Your task to perform on an android device: change alarm snooze length Image 0: 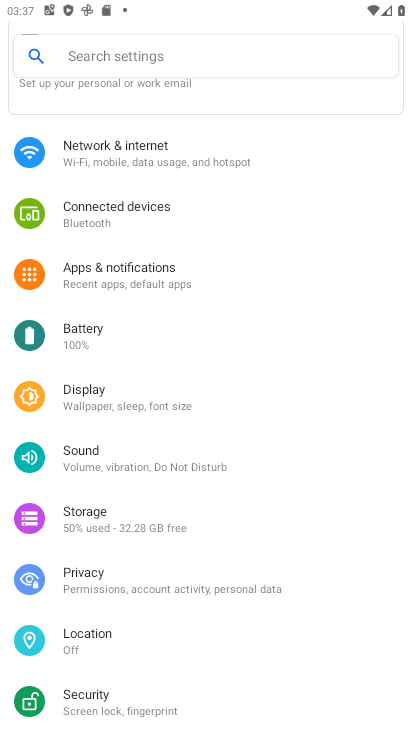
Step 0: press home button
Your task to perform on an android device: change alarm snooze length Image 1: 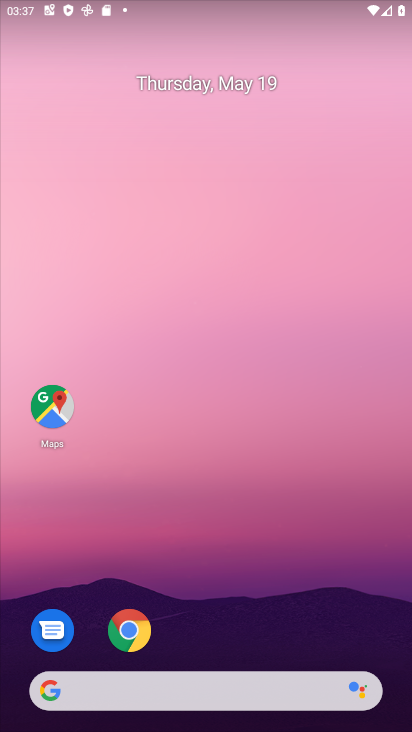
Step 1: drag from (386, 637) to (317, 78)
Your task to perform on an android device: change alarm snooze length Image 2: 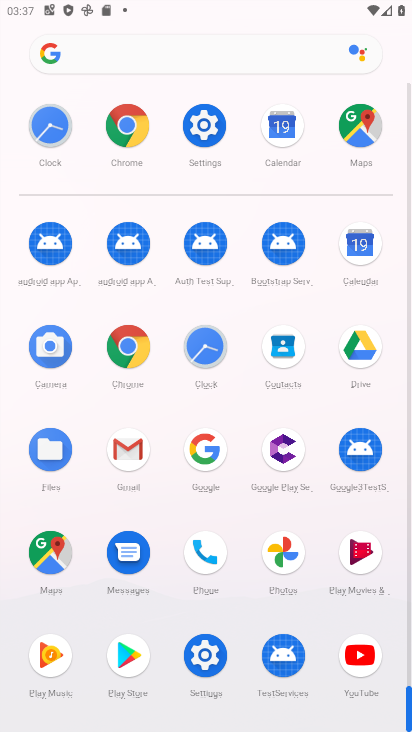
Step 2: click (201, 344)
Your task to perform on an android device: change alarm snooze length Image 3: 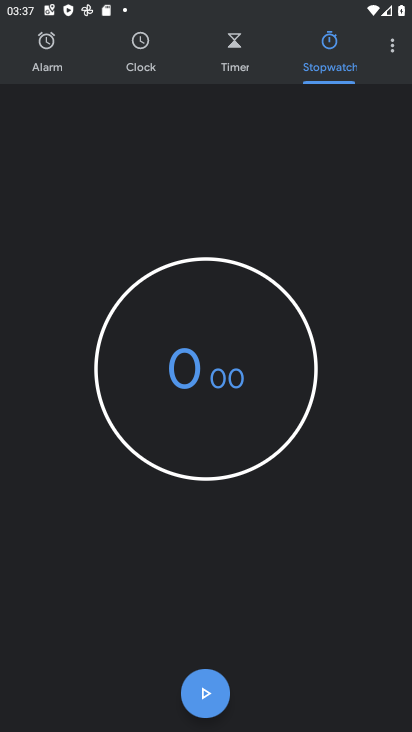
Step 3: click (388, 46)
Your task to perform on an android device: change alarm snooze length Image 4: 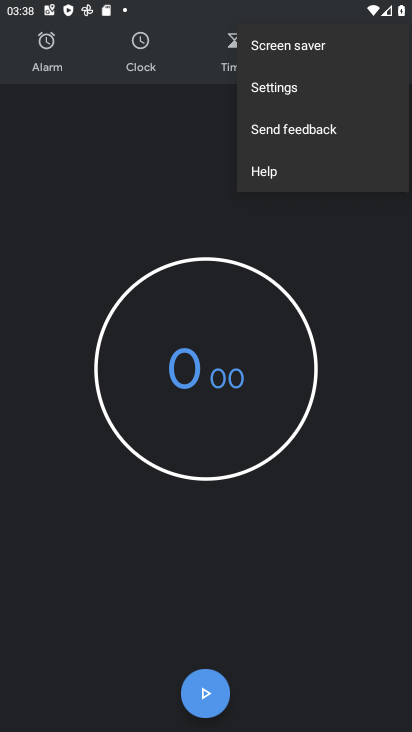
Step 4: click (267, 86)
Your task to perform on an android device: change alarm snooze length Image 5: 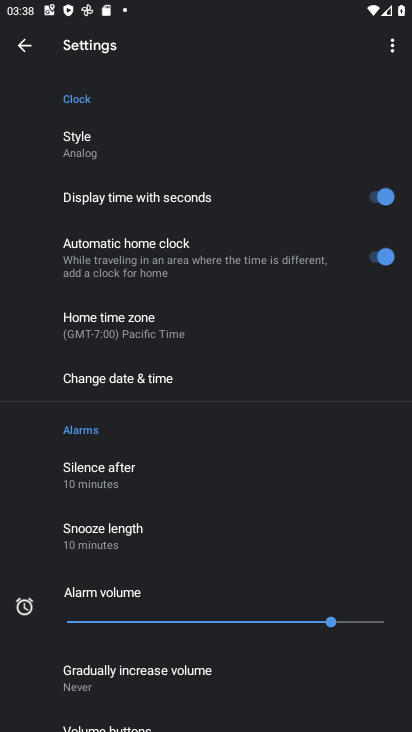
Step 5: click (79, 533)
Your task to perform on an android device: change alarm snooze length Image 6: 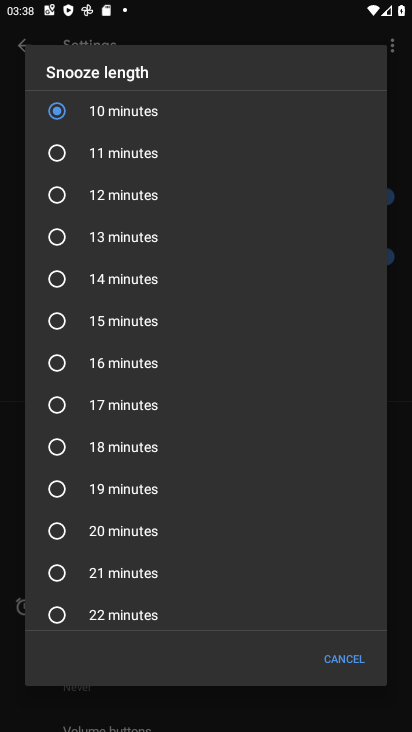
Step 6: click (59, 321)
Your task to perform on an android device: change alarm snooze length Image 7: 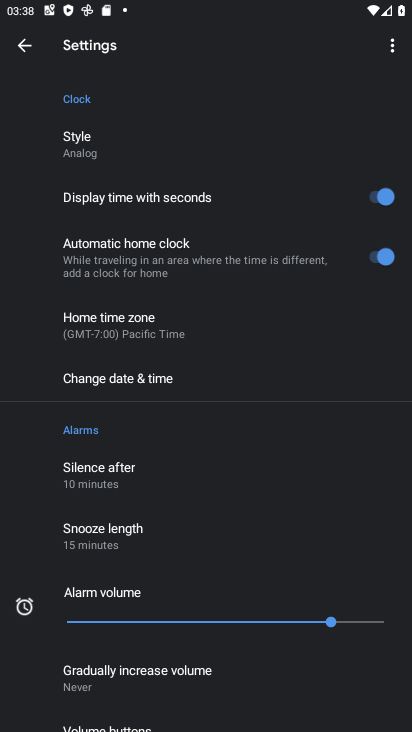
Step 7: task complete